Your task to perform on an android device: change the clock style Image 0: 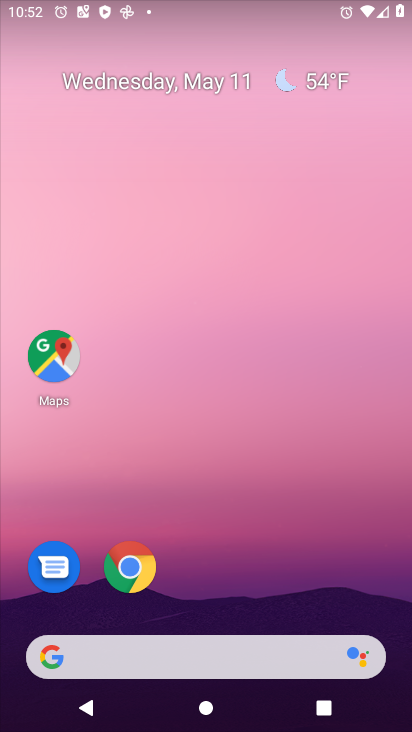
Step 0: drag from (218, 587) to (314, 23)
Your task to perform on an android device: change the clock style Image 1: 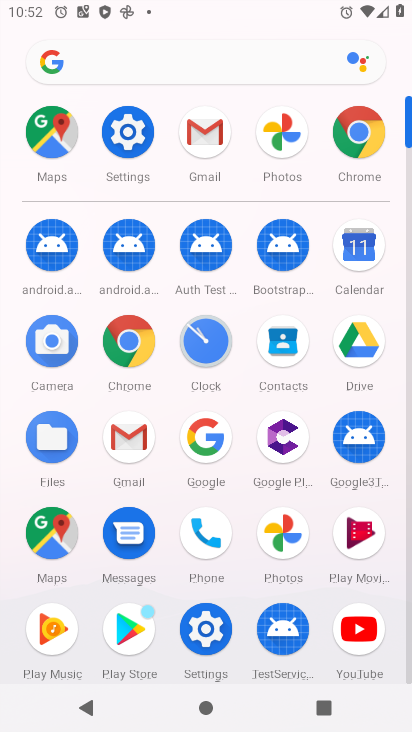
Step 1: click (208, 362)
Your task to perform on an android device: change the clock style Image 2: 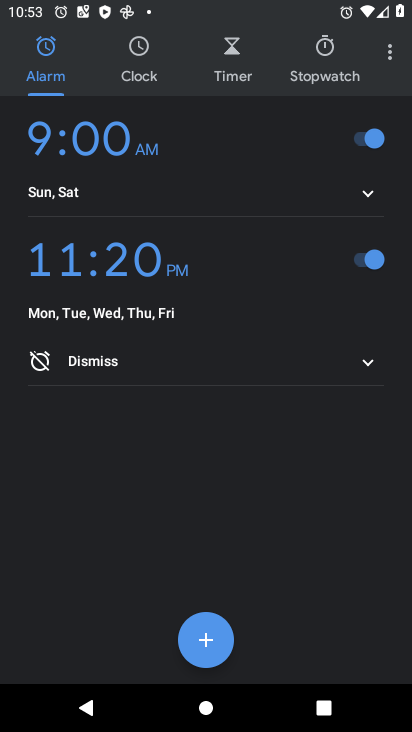
Step 2: click (384, 48)
Your task to perform on an android device: change the clock style Image 3: 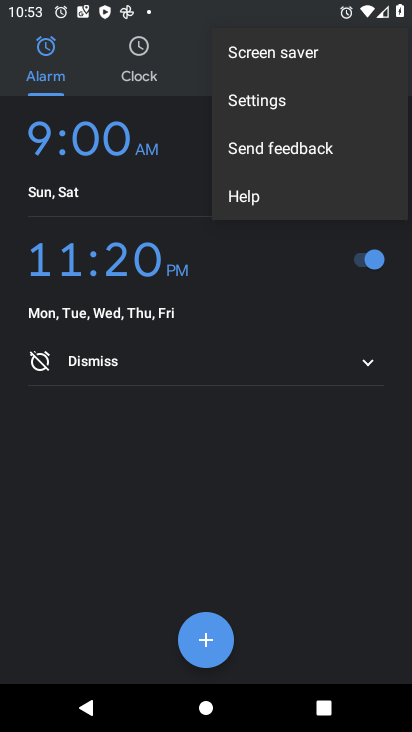
Step 3: click (268, 110)
Your task to perform on an android device: change the clock style Image 4: 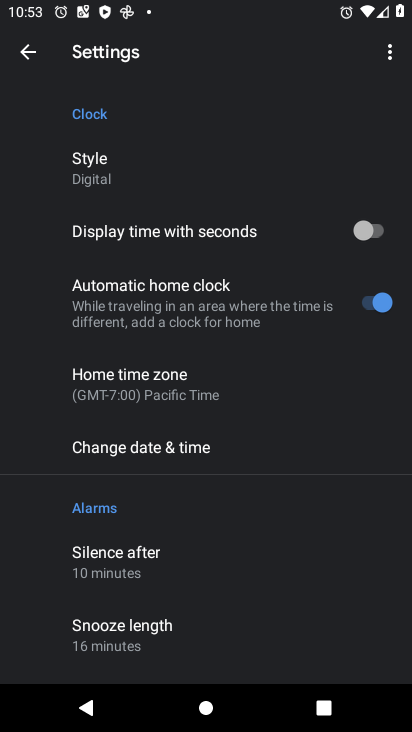
Step 4: click (137, 173)
Your task to perform on an android device: change the clock style Image 5: 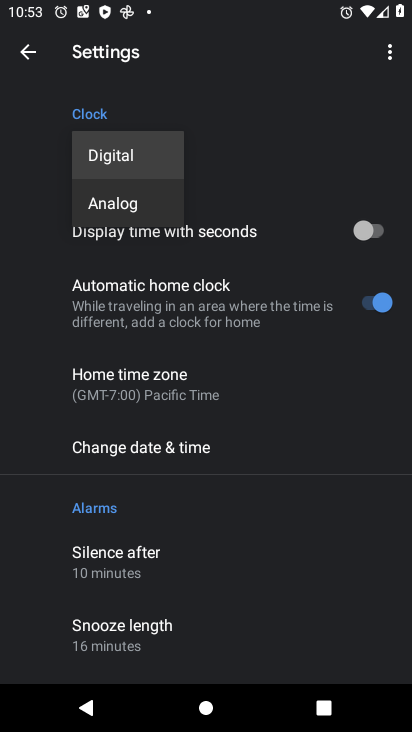
Step 5: click (137, 204)
Your task to perform on an android device: change the clock style Image 6: 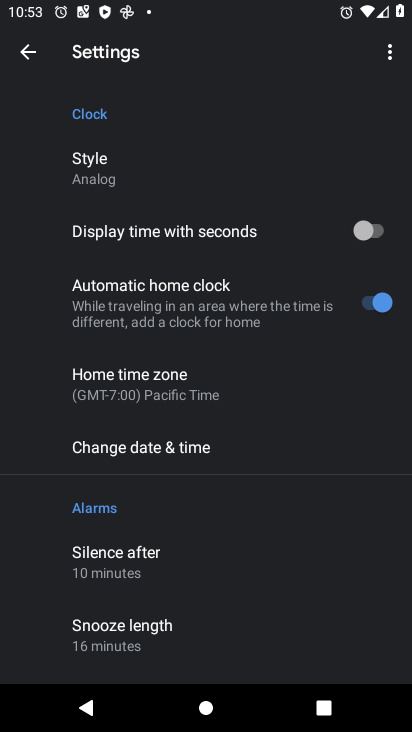
Step 6: task complete